Your task to perform on an android device: Show me recent news Image 0: 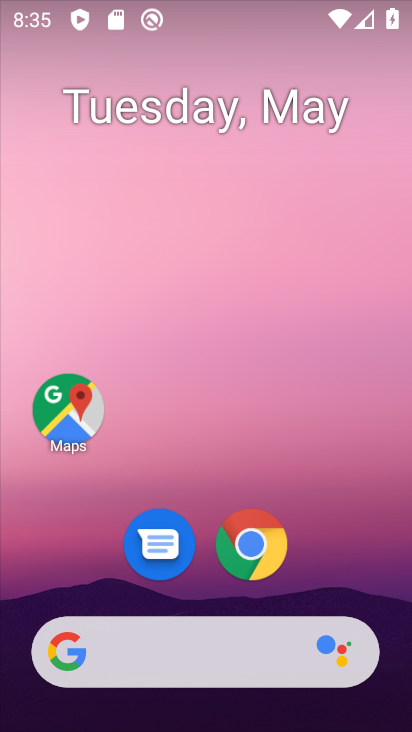
Step 0: drag from (358, 570) to (354, 120)
Your task to perform on an android device: Show me recent news Image 1: 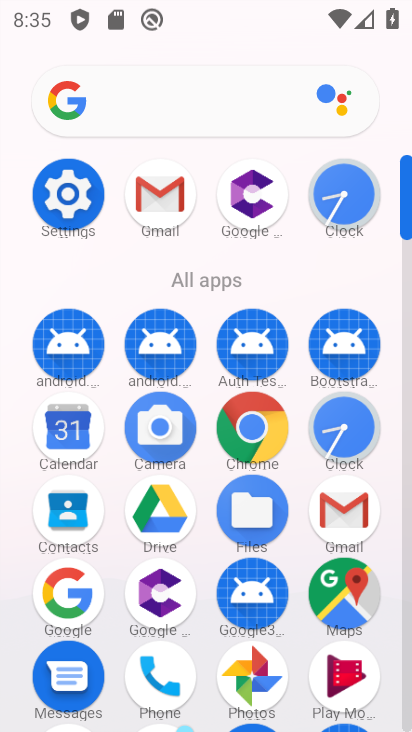
Step 1: click (244, 427)
Your task to perform on an android device: Show me recent news Image 2: 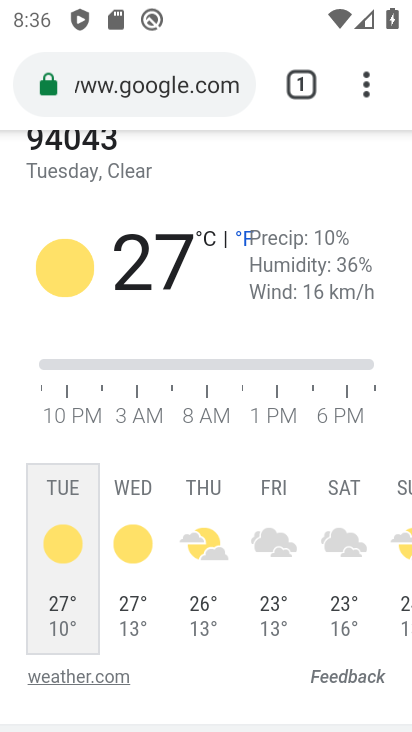
Step 2: click (151, 97)
Your task to perform on an android device: Show me recent news Image 3: 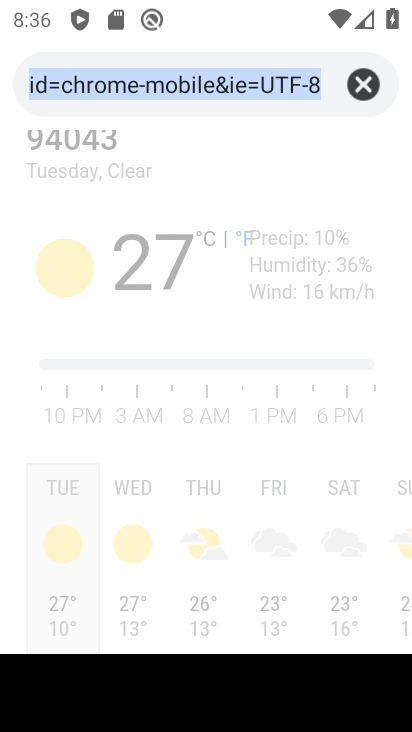
Step 3: click (363, 72)
Your task to perform on an android device: Show me recent news Image 4: 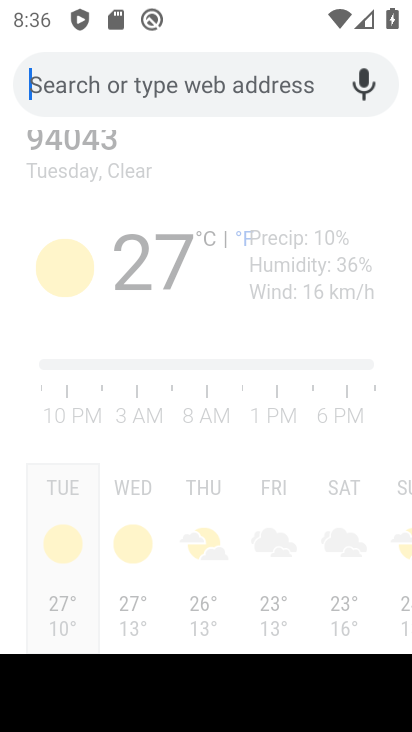
Step 4: type "show me recent news "
Your task to perform on an android device: Show me recent news Image 5: 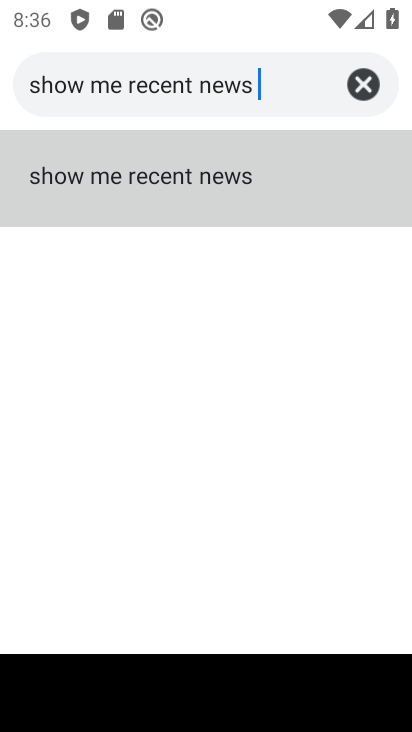
Step 5: click (214, 178)
Your task to perform on an android device: Show me recent news Image 6: 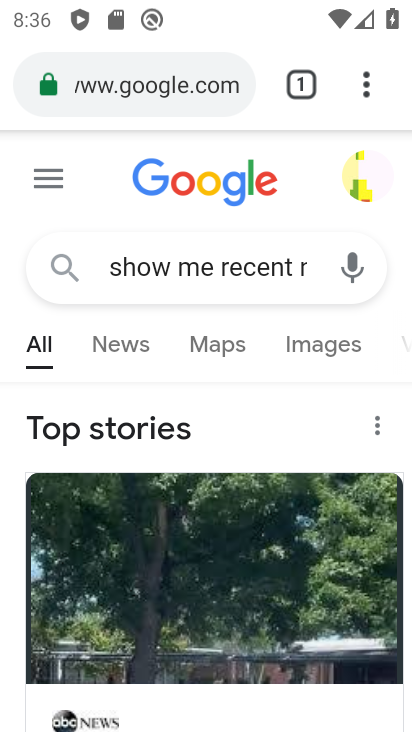
Step 6: task complete